Your task to perform on an android device: Go to Maps Image 0: 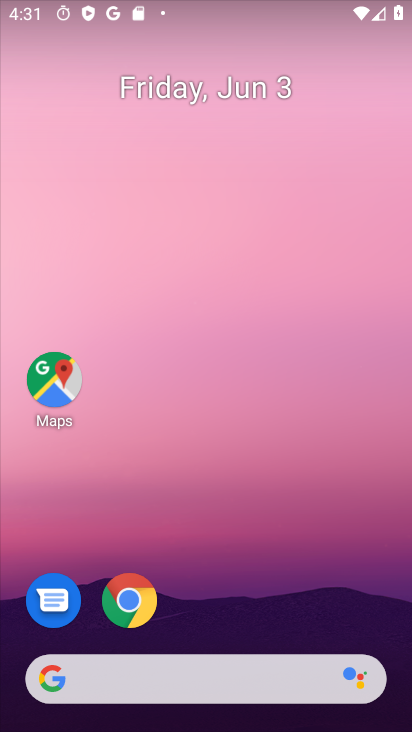
Step 0: click (46, 379)
Your task to perform on an android device: Go to Maps Image 1: 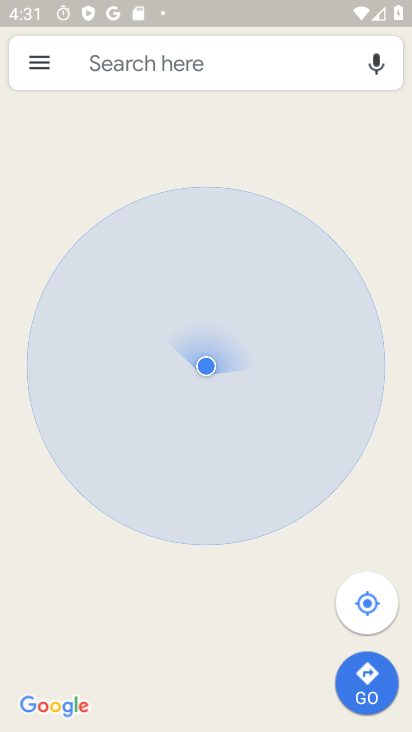
Step 1: task complete